Your task to perform on an android device: What is the news today? Image 0: 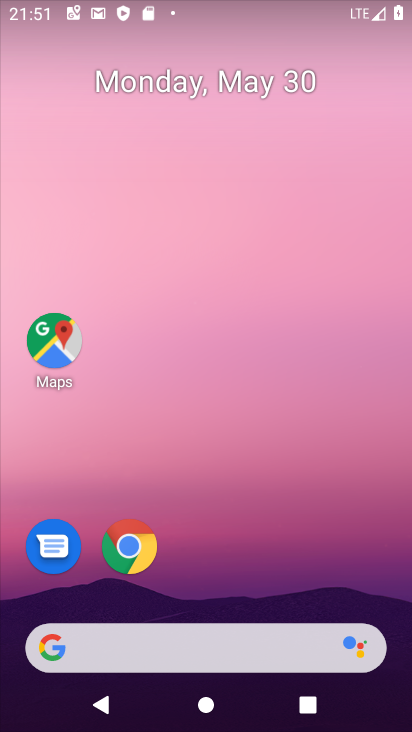
Step 0: drag from (347, 538) to (296, 107)
Your task to perform on an android device: What is the news today? Image 1: 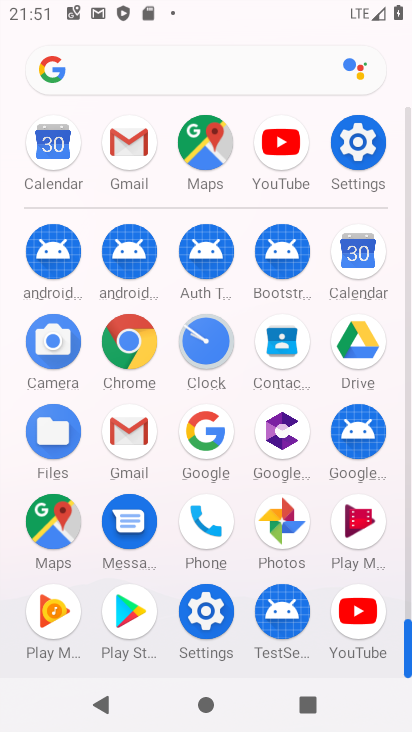
Step 1: click (132, 363)
Your task to perform on an android device: What is the news today? Image 2: 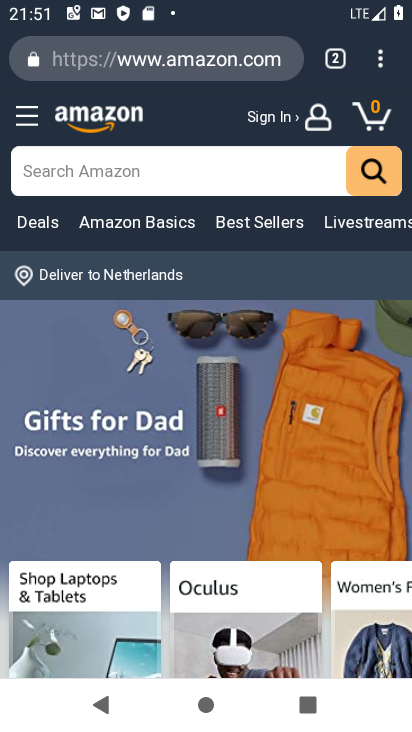
Step 2: click (204, 59)
Your task to perform on an android device: What is the news today? Image 3: 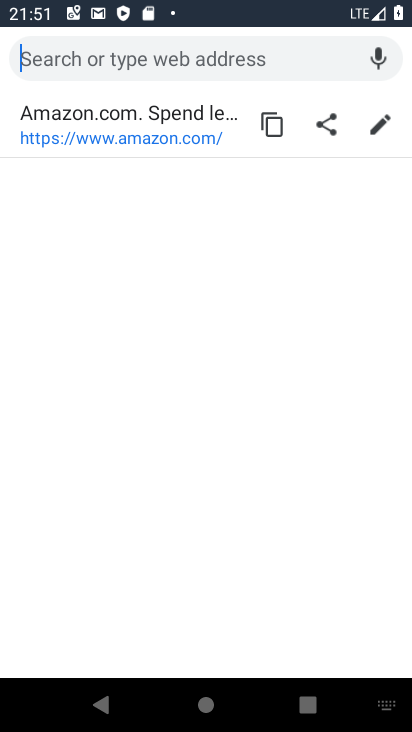
Step 3: type "news today"
Your task to perform on an android device: What is the news today? Image 4: 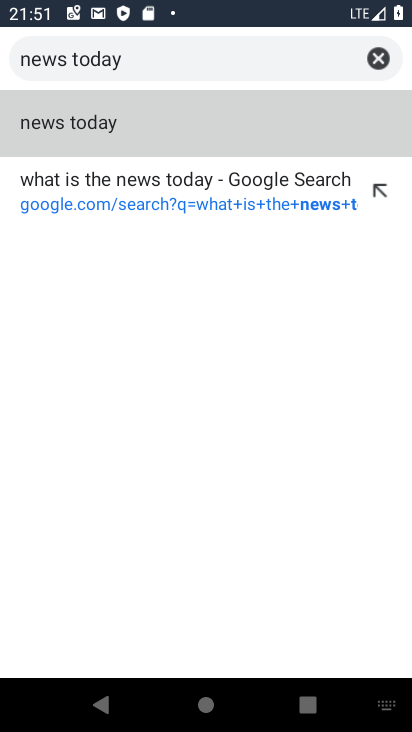
Step 4: click (121, 117)
Your task to perform on an android device: What is the news today? Image 5: 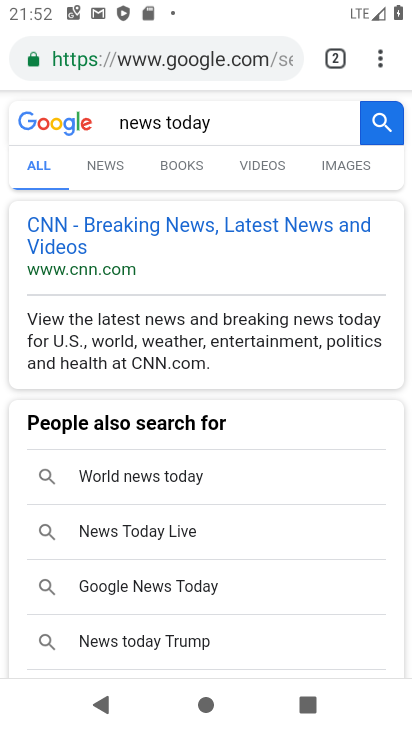
Step 5: task complete